Your task to perform on an android device: Go to settings Image 0: 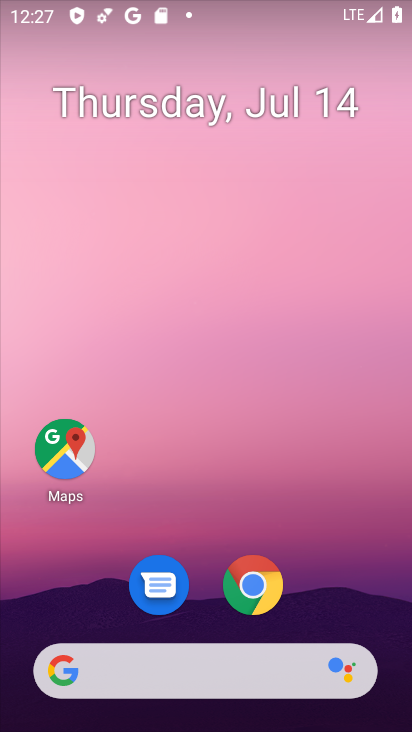
Step 0: drag from (317, 524) to (319, 53)
Your task to perform on an android device: Go to settings Image 1: 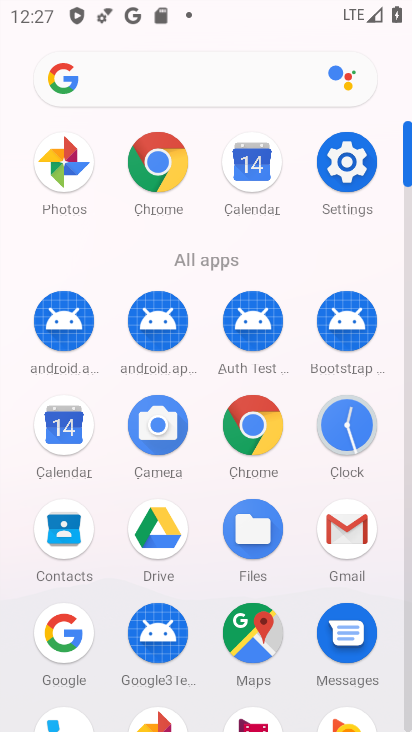
Step 1: click (347, 154)
Your task to perform on an android device: Go to settings Image 2: 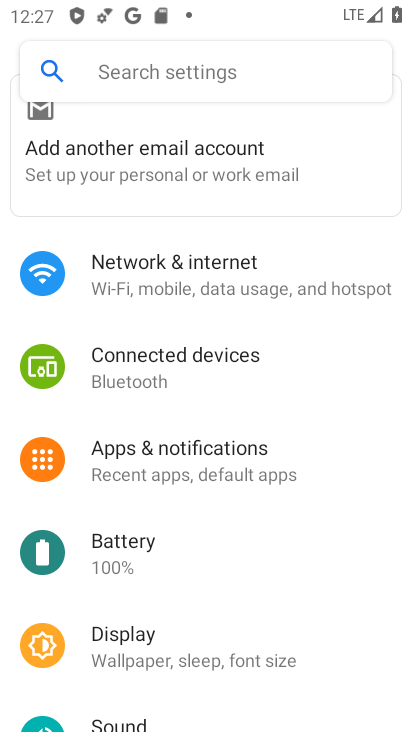
Step 2: task complete